Your task to perform on an android device: turn off smart reply in the gmail app Image 0: 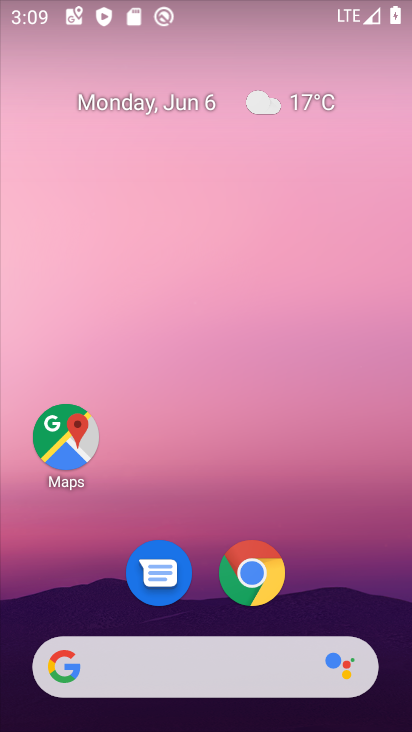
Step 0: drag from (372, 597) to (373, 196)
Your task to perform on an android device: turn off smart reply in the gmail app Image 1: 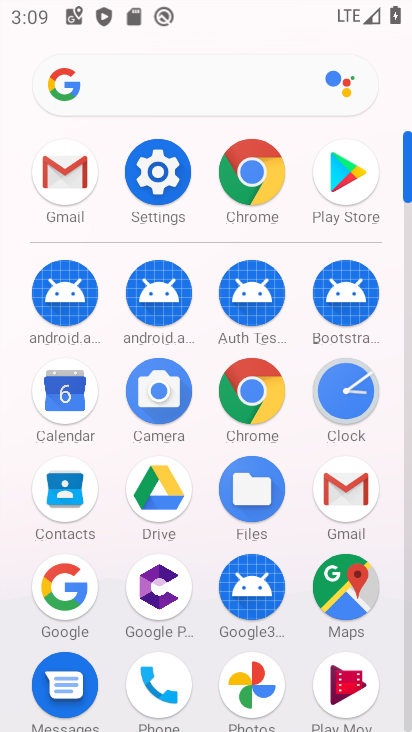
Step 1: click (348, 486)
Your task to perform on an android device: turn off smart reply in the gmail app Image 2: 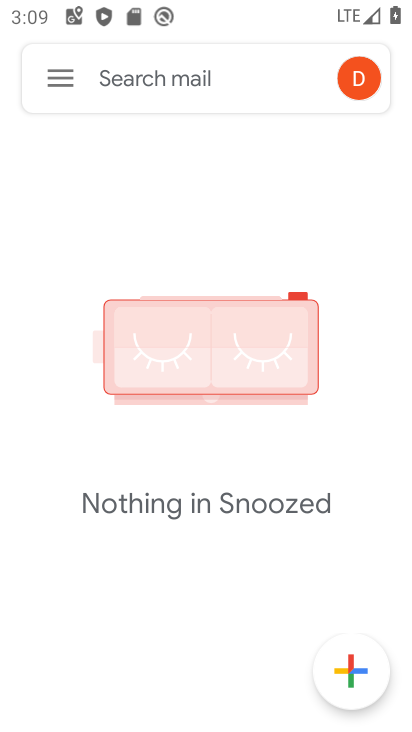
Step 2: click (64, 85)
Your task to perform on an android device: turn off smart reply in the gmail app Image 3: 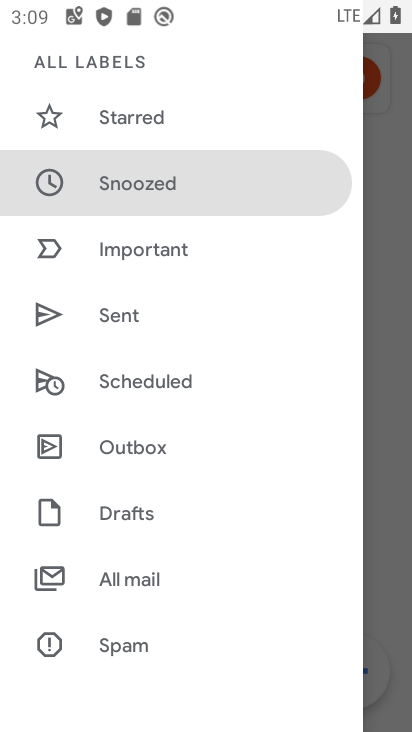
Step 3: drag from (285, 409) to (283, 313)
Your task to perform on an android device: turn off smart reply in the gmail app Image 4: 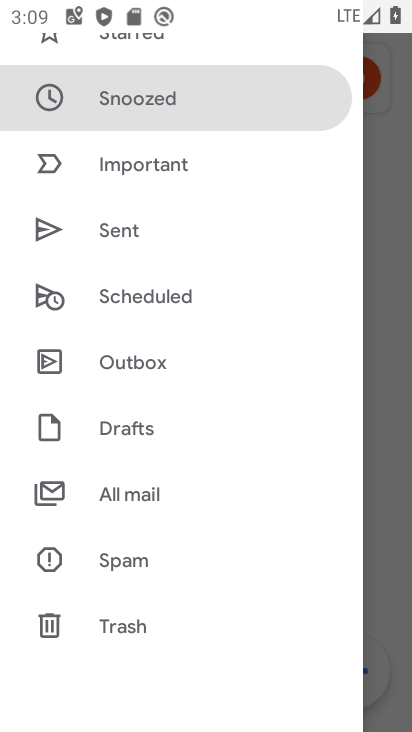
Step 4: drag from (274, 391) to (281, 299)
Your task to perform on an android device: turn off smart reply in the gmail app Image 5: 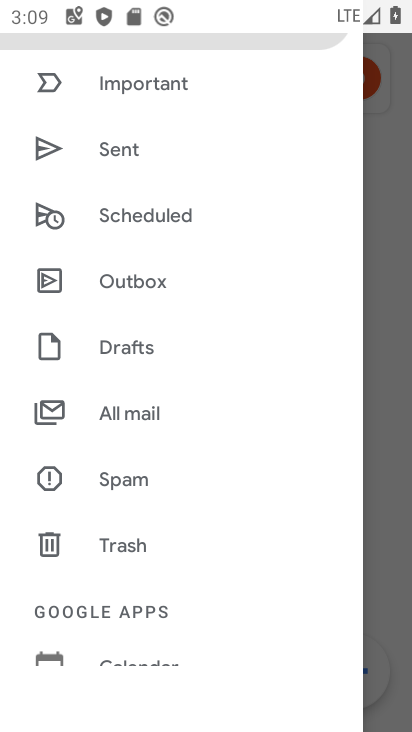
Step 5: drag from (288, 445) to (298, 339)
Your task to perform on an android device: turn off smart reply in the gmail app Image 6: 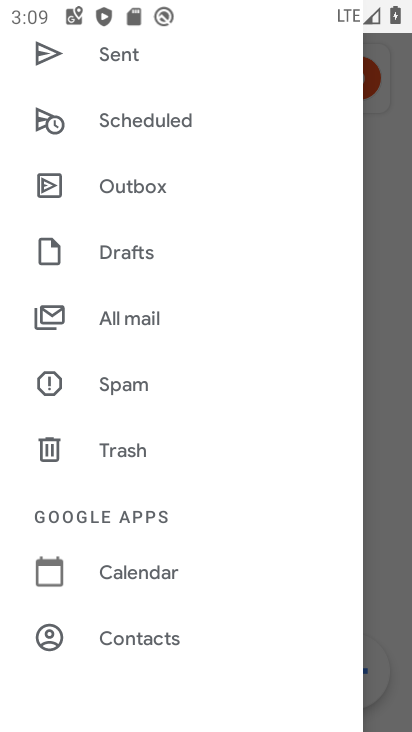
Step 6: drag from (279, 444) to (271, 329)
Your task to perform on an android device: turn off smart reply in the gmail app Image 7: 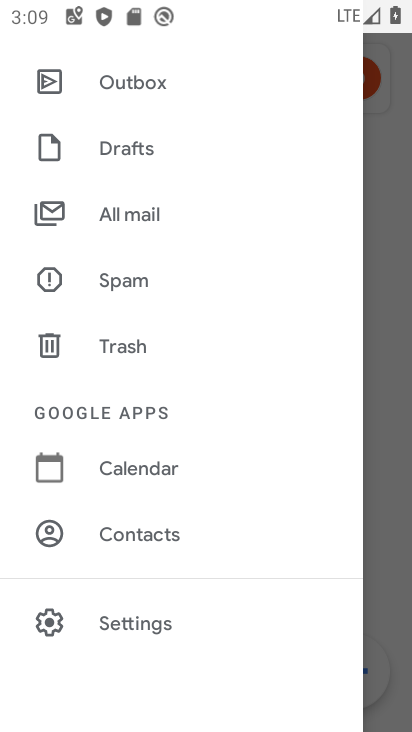
Step 7: drag from (274, 463) to (274, 354)
Your task to perform on an android device: turn off smart reply in the gmail app Image 8: 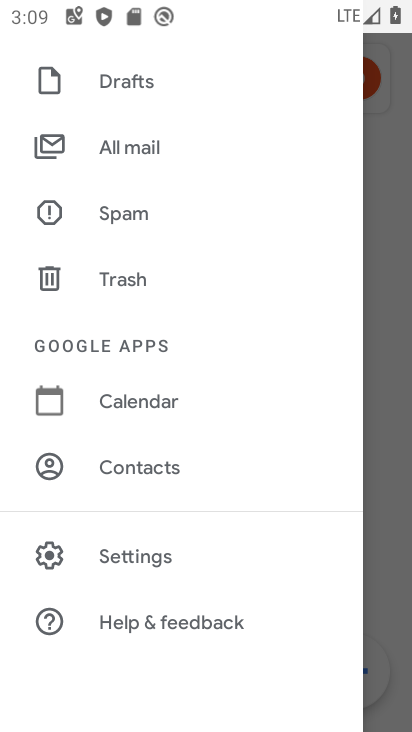
Step 8: click (184, 562)
Your task to perform on an android device: turn off smart reply in the gmail app Image 9: 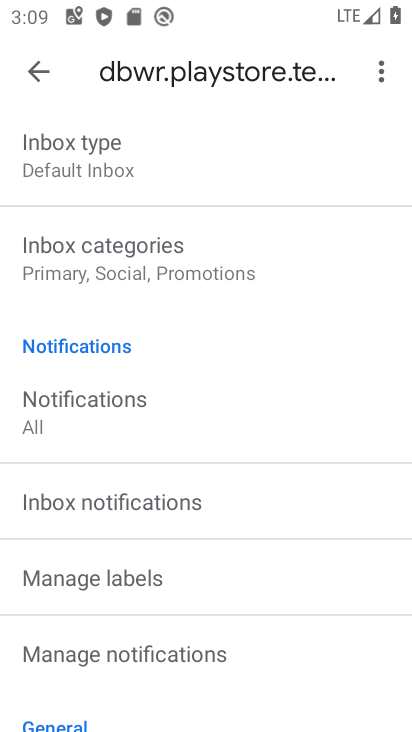
Step 9: drag from (293, 418) to (298, 355)
Your task to perform on an android device: turn off smart reply in the gmail app Image 10: 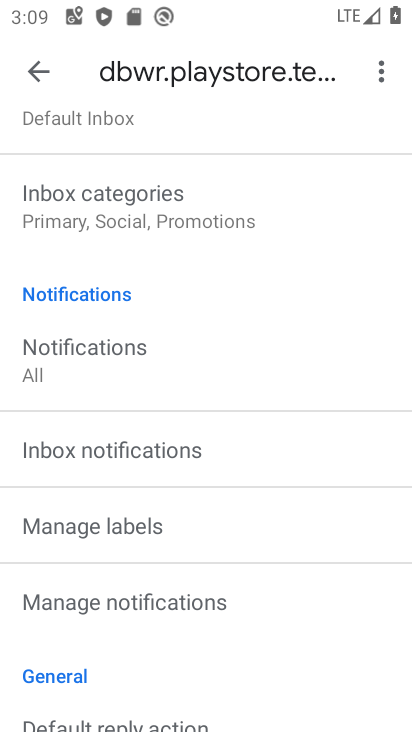
Step 10: drag from (296, 477) to (303, 382)
Your task to perform on an android device: turn off smart reply in the gmail app Image 11: 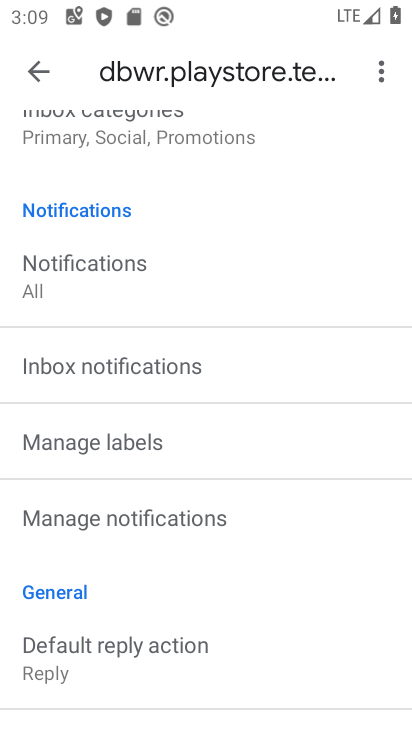
Step 11: drag from (320, 508) to (325, 369)
Your task to perform on an android device: turn off smart reply in the gmail app Image 12: 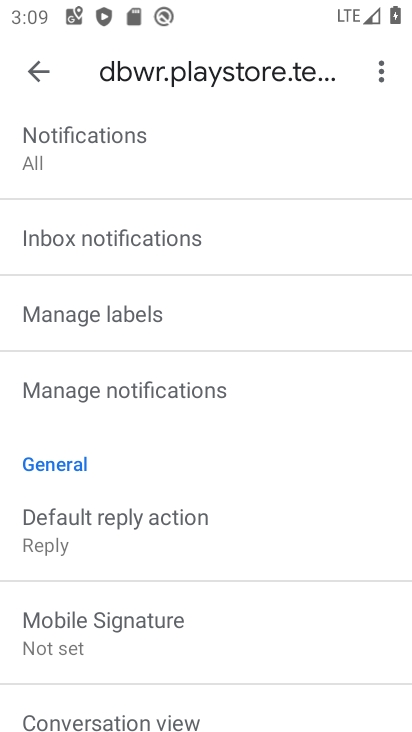
Step 12: drag from (334, 529) to (339, 406)
Your task to perform on an android device: turn off smart reply in the gmail app Image 13: 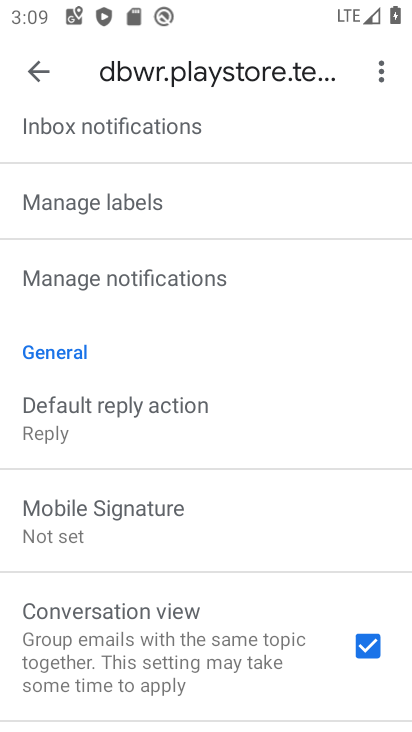
Step 13: drag from (294, 508) to (294, 453)
Your task to perform on an android device: turn off smart reply in the gmail app Image 14: 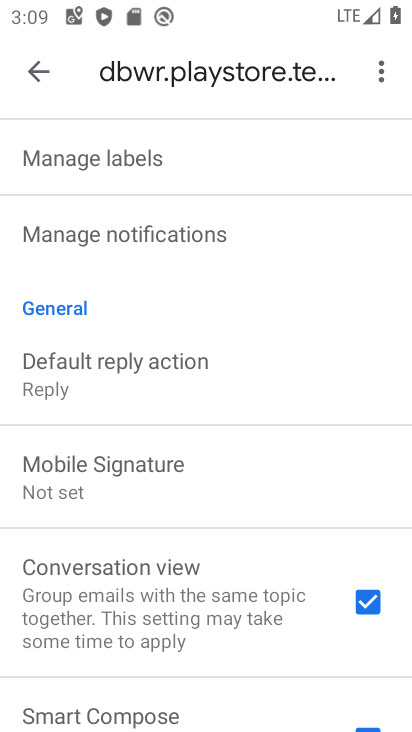
Step 14: drag from (290, 576) to (297, 469)
Your task to perform on an android device: turn off smart reply in the gmail app Image 15: 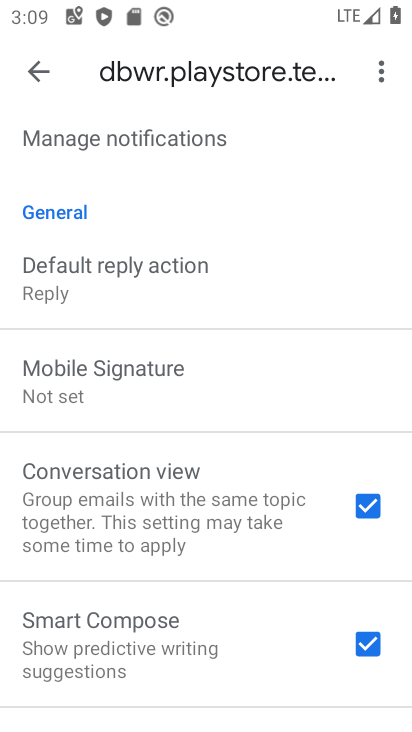
Step 15: drag from (287, 575) to (305, 438)
Your task to perform on an android device: turn off smart reply in the gmail app Image 16: 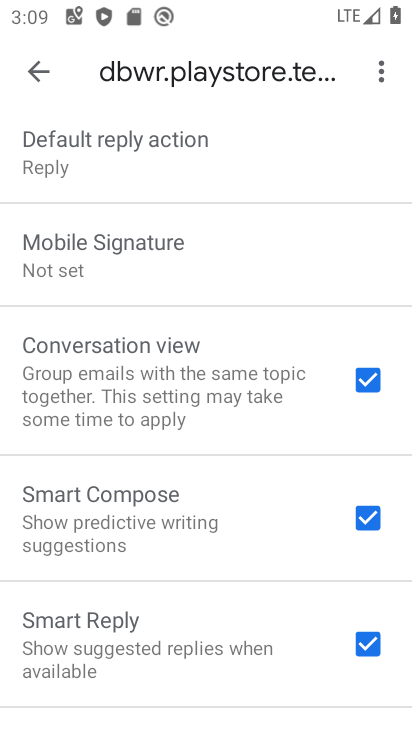
Step 16: drag from (284, 575) to (284, 423)
Your task to perform on an android device: turn off smart reply in the gmail app Image 17: 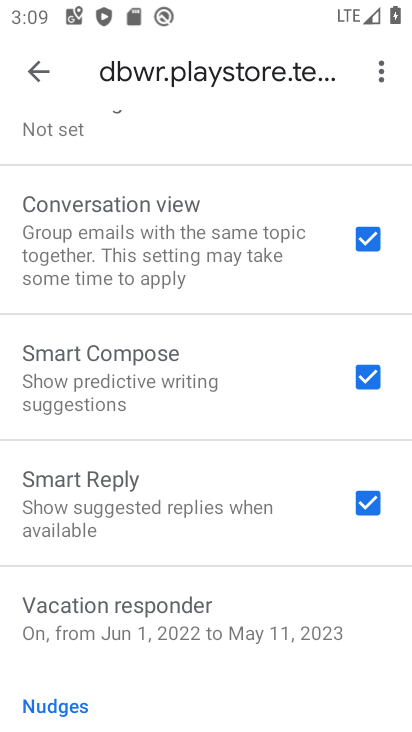
Step 17: click (362, 513)
Your task to perform on an android device: turn off smart reply in the gmail app Image 18: 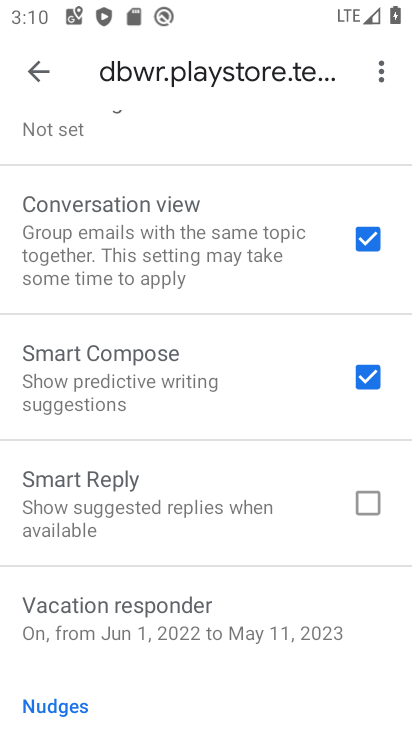
Step 18: task complete